Your task to perform on an android device: Open the calendar and show me this week's events? Image 0: 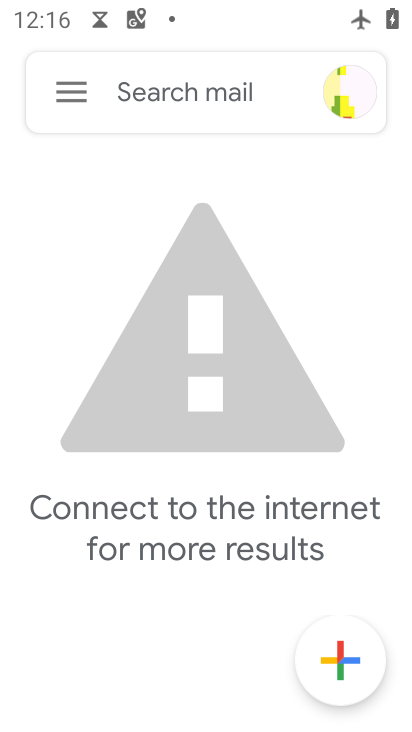
Step 0: click (61, 79)
Your task to perform on an android device: Open the calendar and show me this week's events? Image 1: 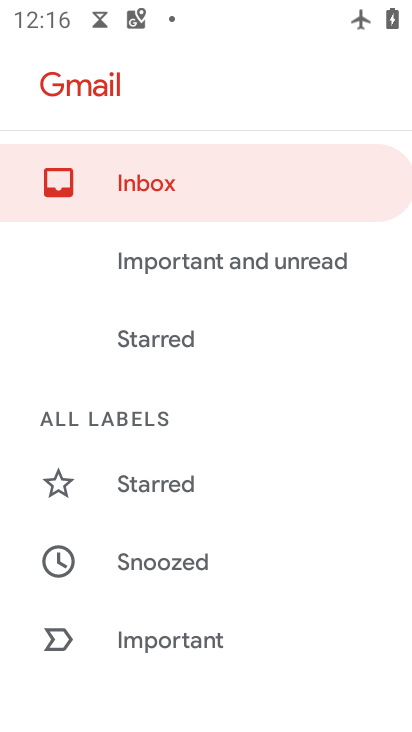
Step 1: press home button
Your task to perform on an android device: Open the calendar and show me this week's events? Image 2: 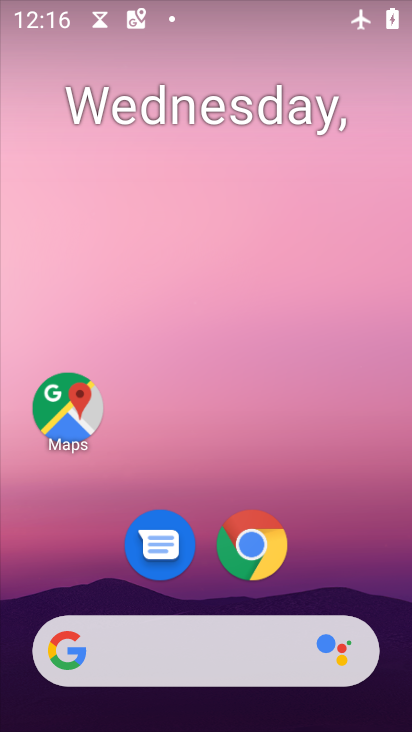
Step 2: drag from (348, 296) to (366, 0)
Your task to perform on an android device: Open the calendar and show me this week's events? Image 3: 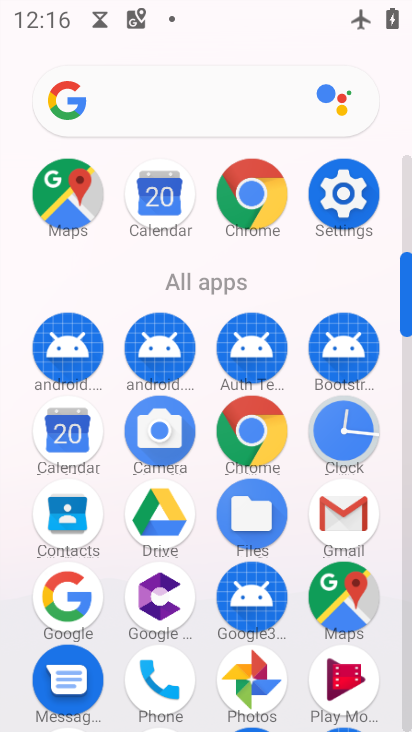
Step 3: click (98, 440)
Your task to perform on an android device: Open the calendar and show me this week's events? Image 4: 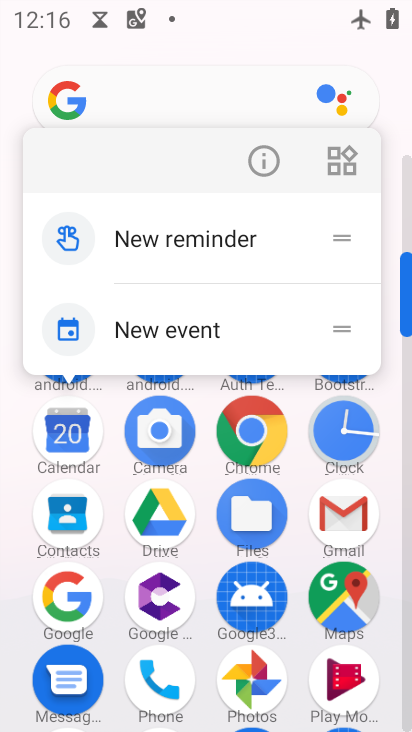
Step 4: click (66, 443)
Your task to perform on an android device: Open the calendar and show me this week's events? Image 5: 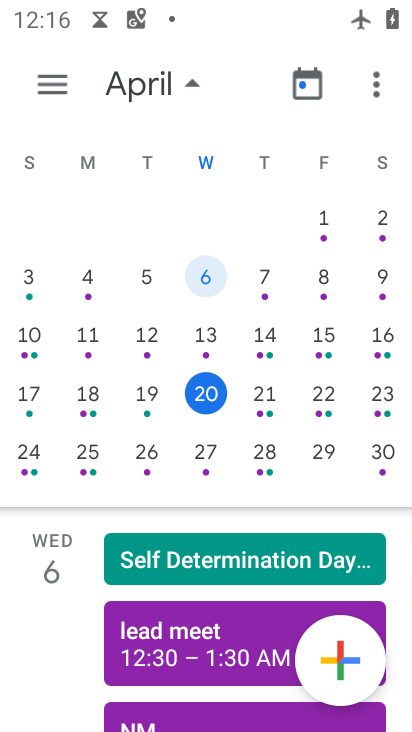
Step 5: click (255, 393)
Your task to perform on an android device: Open the calendar and show me this week's events? Image 6: 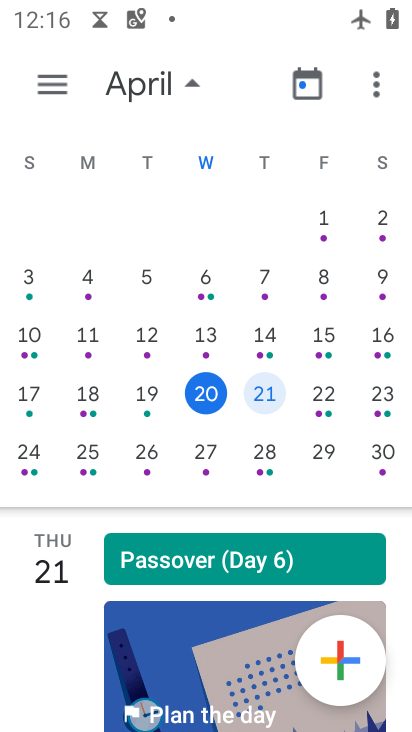
Step 6: task complete